Your task to perform on an android device: open chrome and create a bookmark for the current page Image 0: 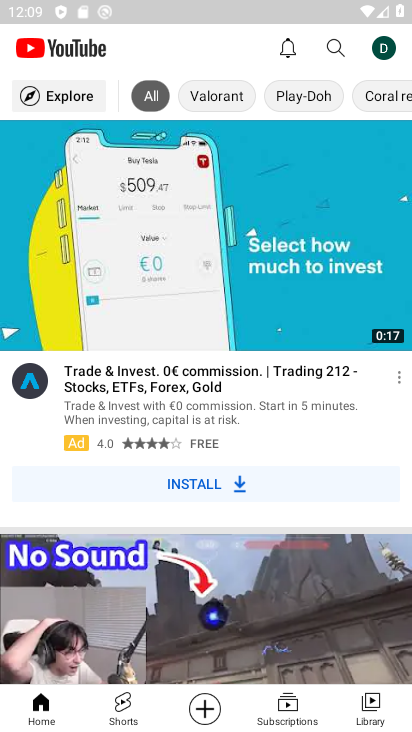
Step 0: press home button
Your task to perform on an android device: open chrome and create a bookmark for the current page Image 1: 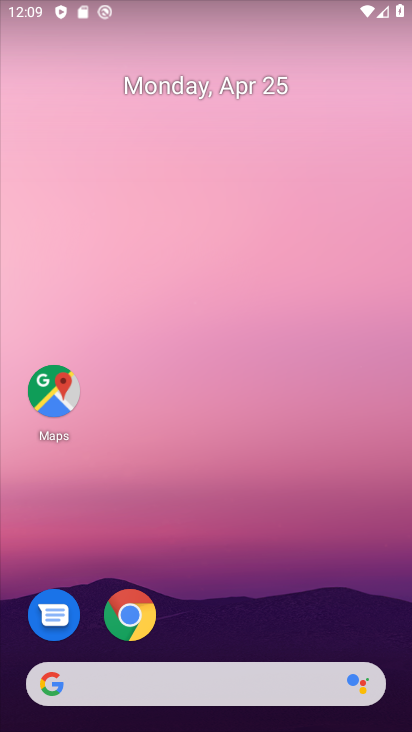
Step 1: drag from (307, 630) to (342, 124)
Your task to perform on an android device: open chrome and create a bookmark for the current page Image 2: 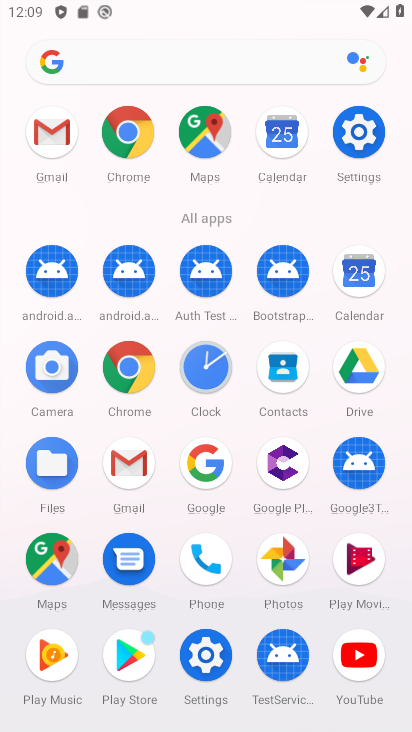
Step 2: click (135, 141)
Your task to perform on an android device: open chrome and create a bookmark for the current page Image 3: 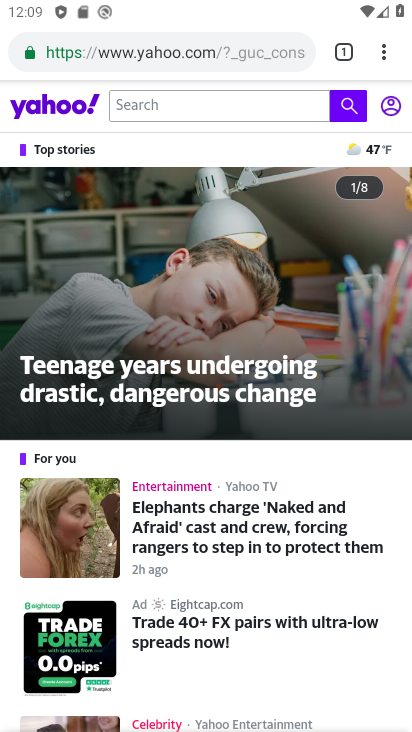
Step 3: click (387, 61)
Your task to perform on an android device: open chrome and create a bookmark for the current page Image 4: 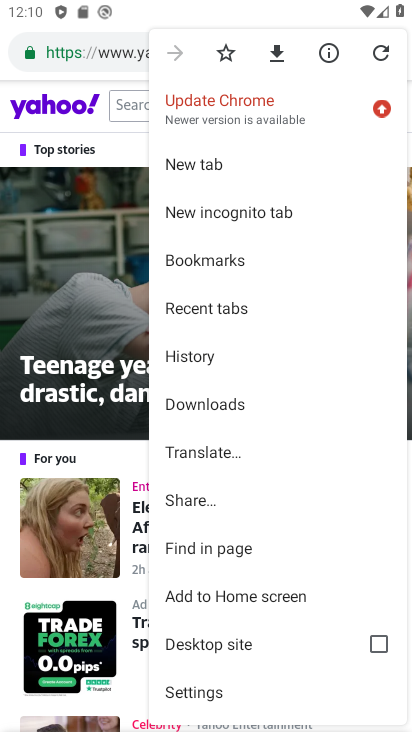
Step 4: click (227, 55)
Your task to perform on an android device: open chrome and create a bookmark for the current page Image 5: 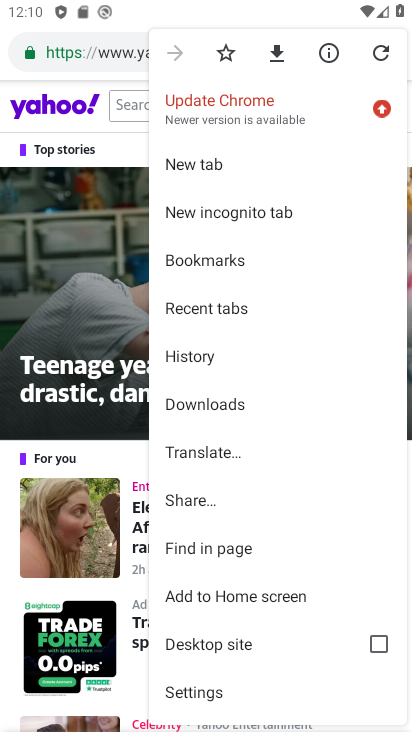
Step 5: click (228, 50)
Your task to perform on an android device: open chrome and create a bookmark for the current page Image 6: 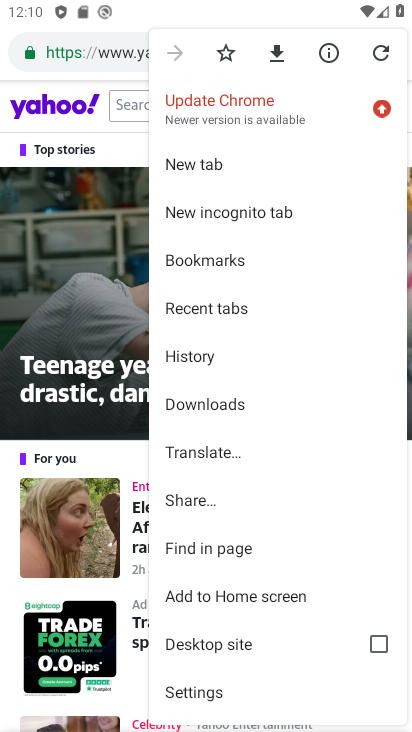
Step 6: task complete